Your task to perform on an android device: open device folders in google photos Image 0: 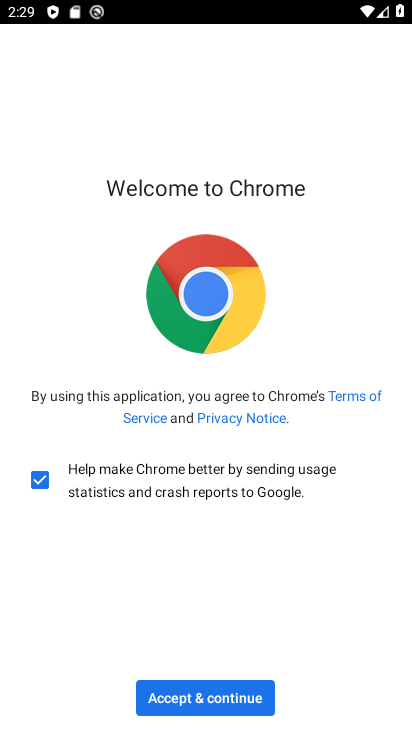
Step 0: press home button
Your task to perform on an android device: open device folders in google photos Image 1: 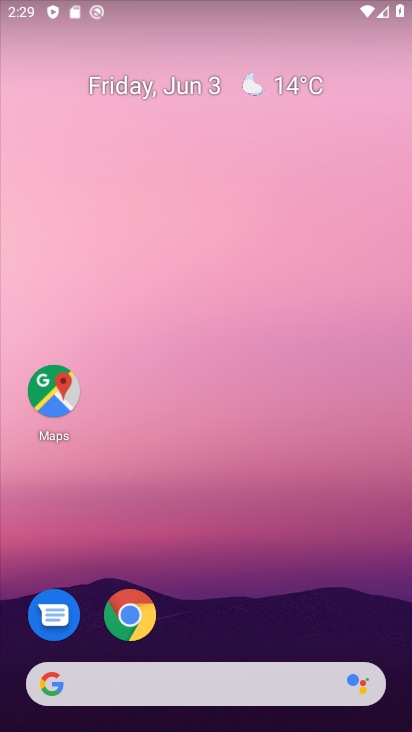
Step 1: drag from (241, 631) to (236, 448)
Your task to perform on an android device: open device folders in google photos Image 2: 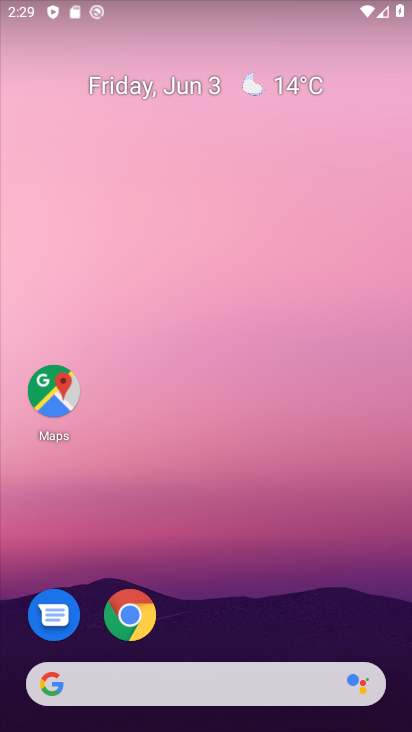
Step 2: drag from (252, 603) to (146, 6)
Your task to perform on an android device: open device folders in google photos Image 3: 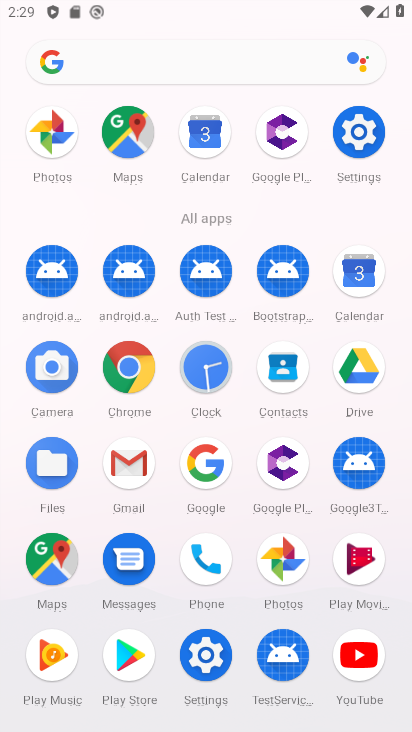
Step 3: click (51, 145)
Your task to perform on an android device: open device folders in google photos Image 4: 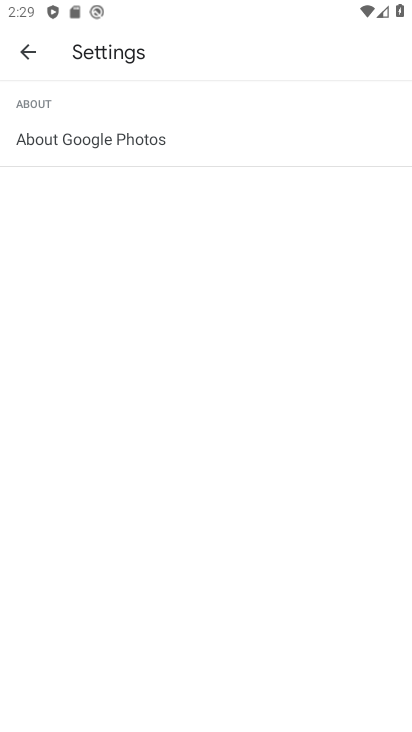
Step 4: click (24, 53)
Your task to perform on an android device: open device folders in google photos Image 5: 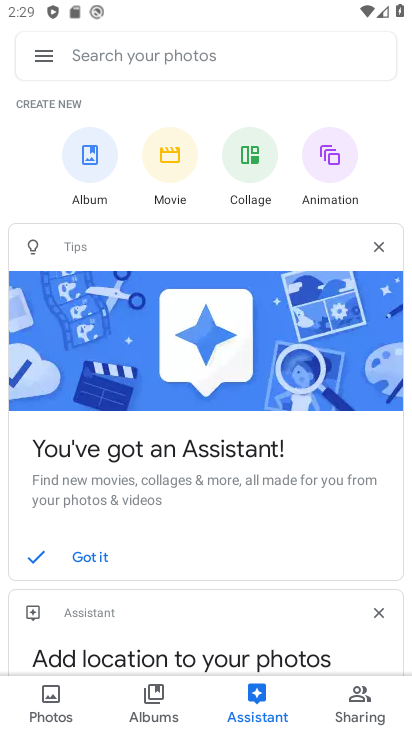
Step 5: click (37, 46)
Your task to perform on an android device: open device folders in google photos Image 6: 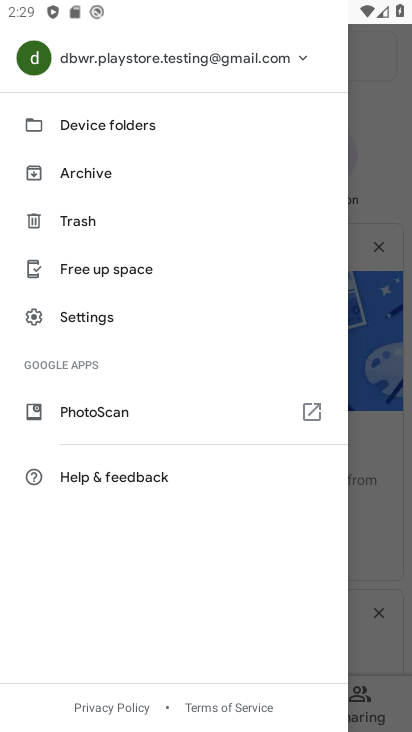
Step 6: click (113, 122)
Your task to perform on an android device: open device folders in google photos Image 7: 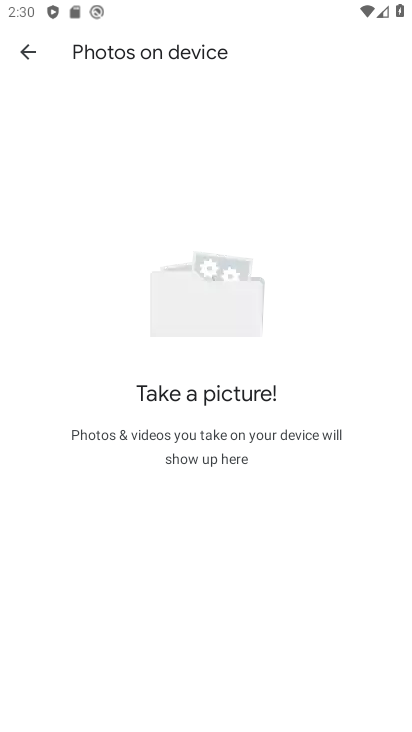
Step 7: task complete